Your task to perform on an android device: search for starred emails in the gmail app Image 0: 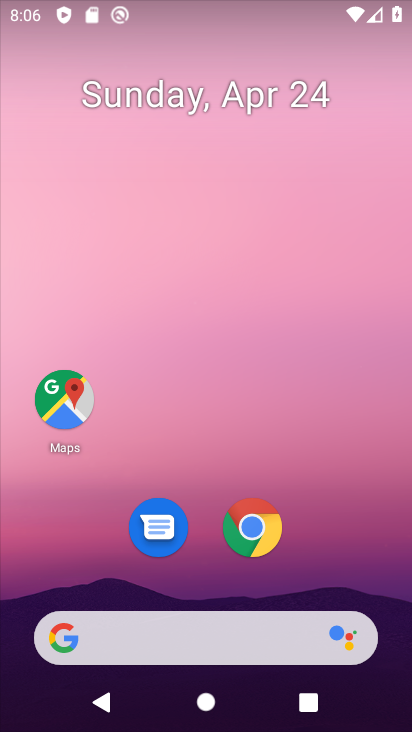
Step 0: drag from (366, 561) to (370, 6)
Your task to perform on an android device: search for starred emails in the gmail app Image 1: 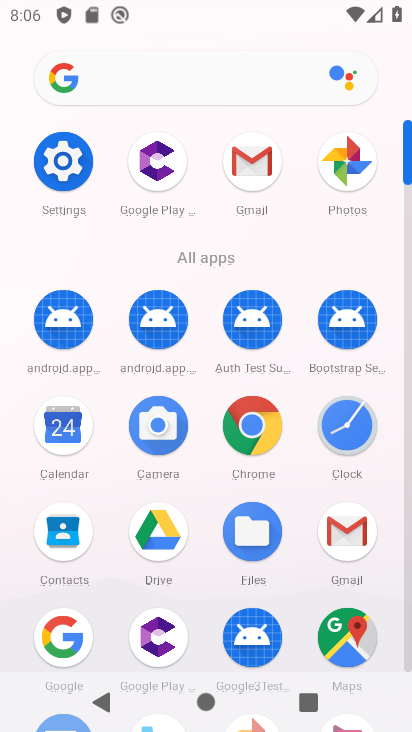
Step 1: click (258, 174)
Your task to perform on an android device: search for starred emails in the gmail app Image 2: 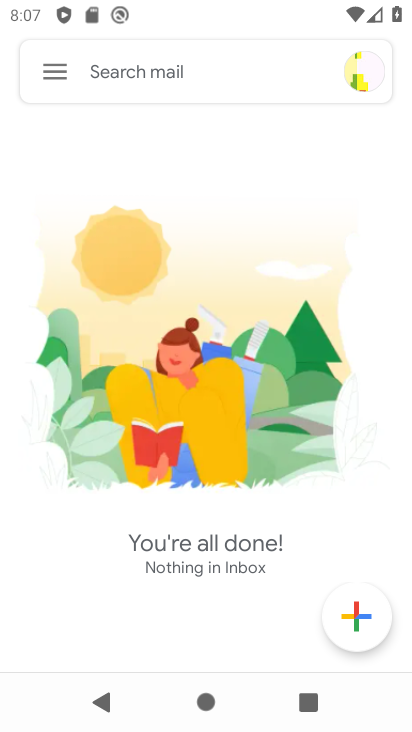
Step 2: click (51, 79)
Your task to perform on an android device: search for starred emails in the gmail app Image 3: 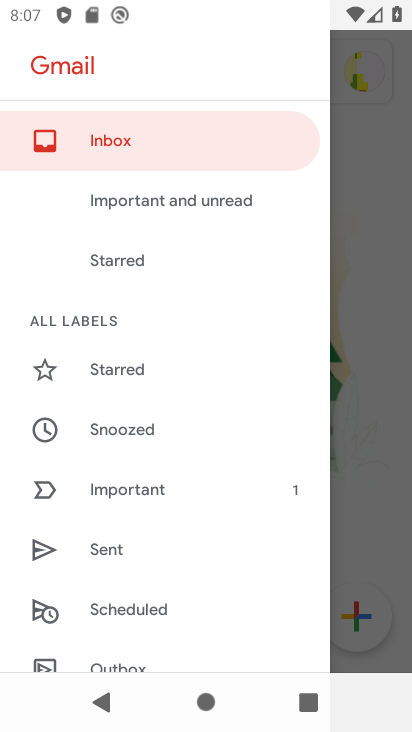
Step 3: click (120, 370)
Your task to perform on an android device: search for starred emails in the gmail app Image 4: 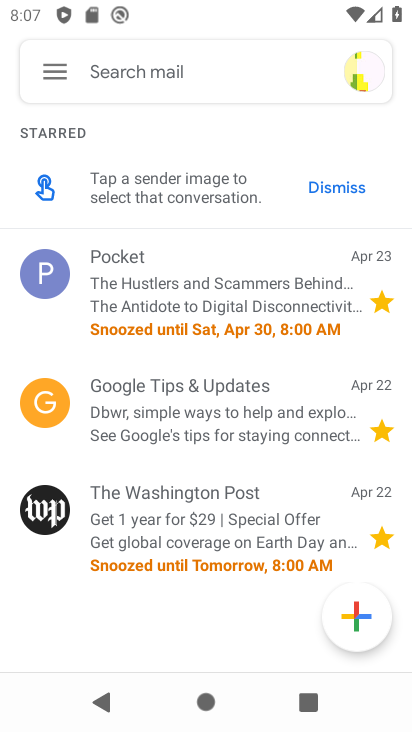
Step 4: task complete